Your task to perform on an android device: Open location settings Image 0: 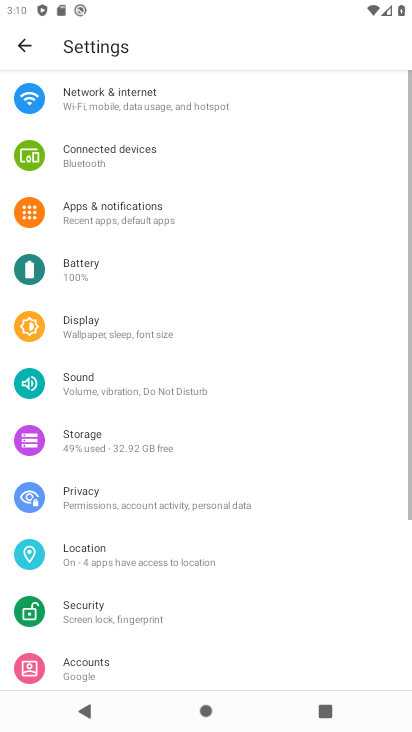
Step 0: click (236, 554)
Your task to perform on an android device: Open location settings Image 1: 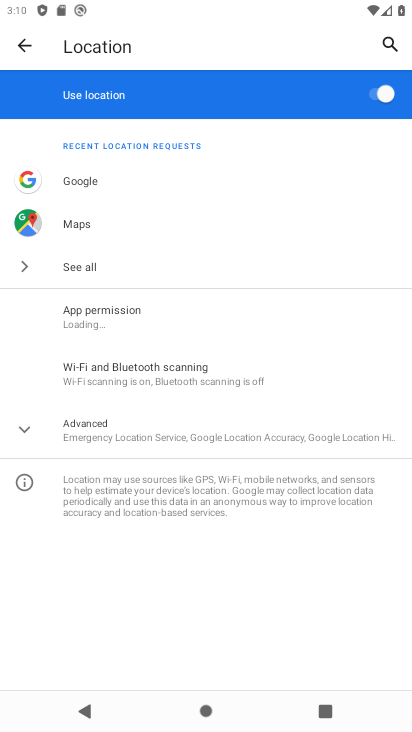
Step 1: click (240, 424)
Your task to perform on an android device: Open location settings Image 2: 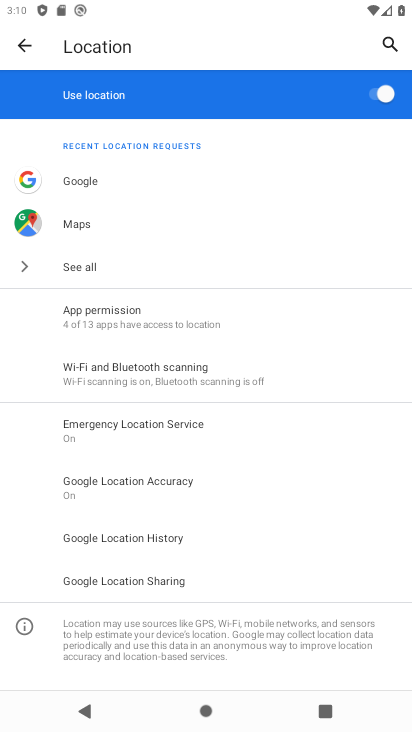
Step 2: task complete